Your task to perform on an android device: turn off airplane mode Image 0: 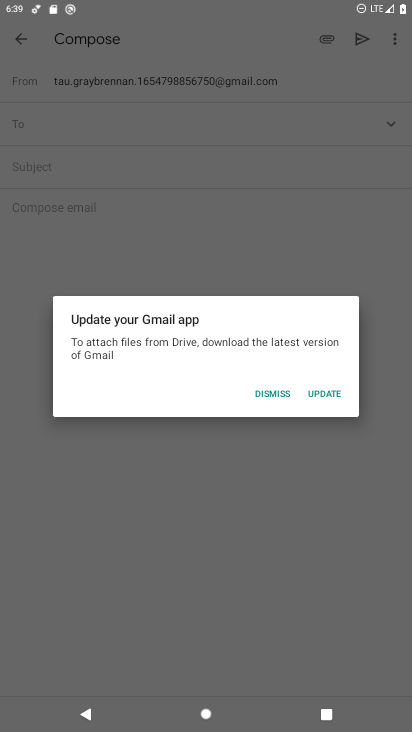
Step 0: press home button
Your task to perform on an android device: turn off airplane mode Image 1: 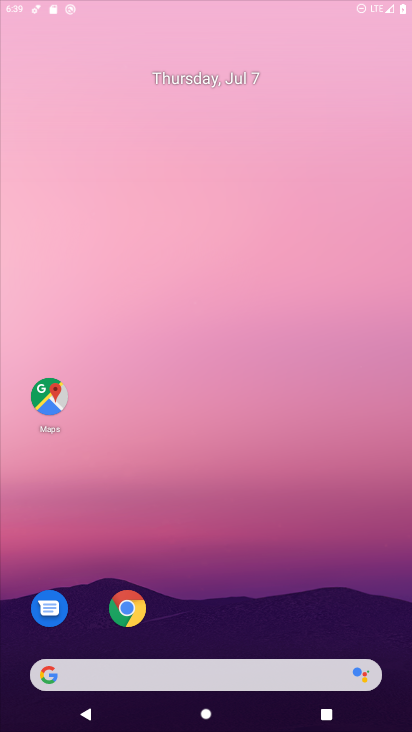
Step 1: task complete